Your task to perform on an android device: turn off wifi Image 0: 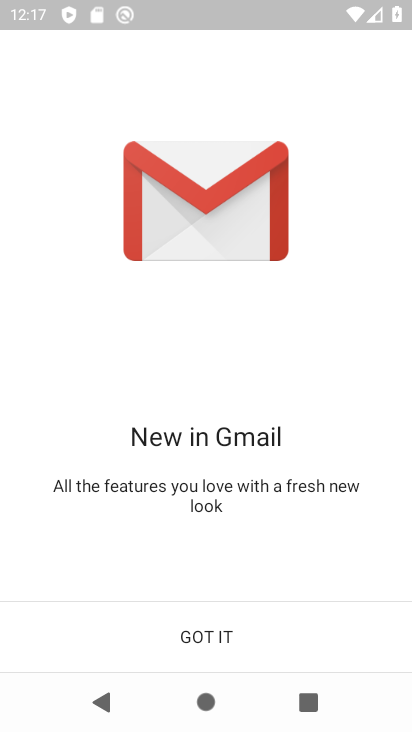
Step 0: click (247, 629)
Your task to perform on an android device: turn off wifi Image 1: 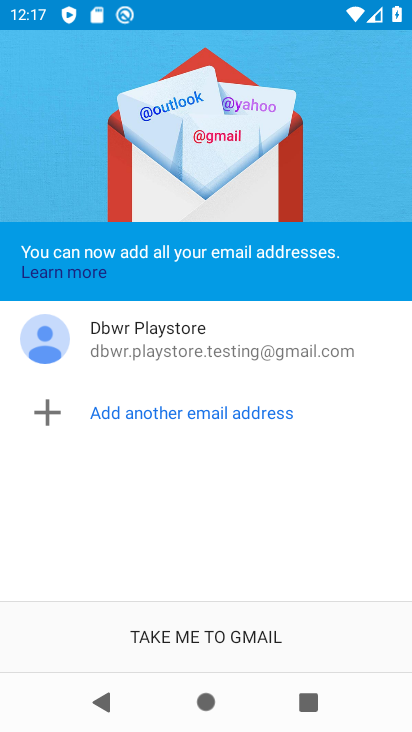
Step 1: click (241, 648)
Your task to perform on an android device: turn off wifi Image 2: 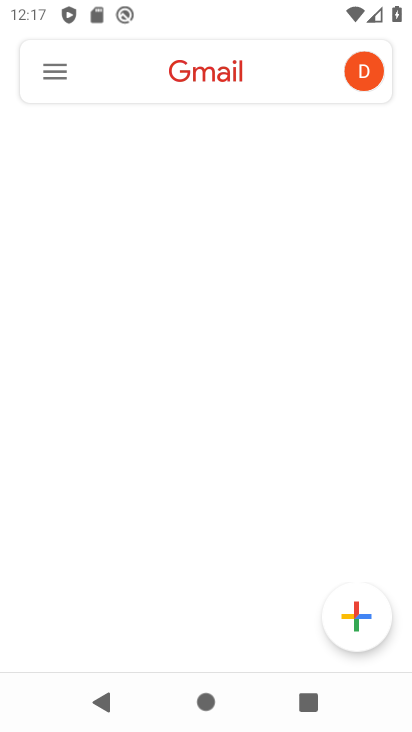
Step 2: press home button
Your task to perform on an android device: turn off wifi Image 3: 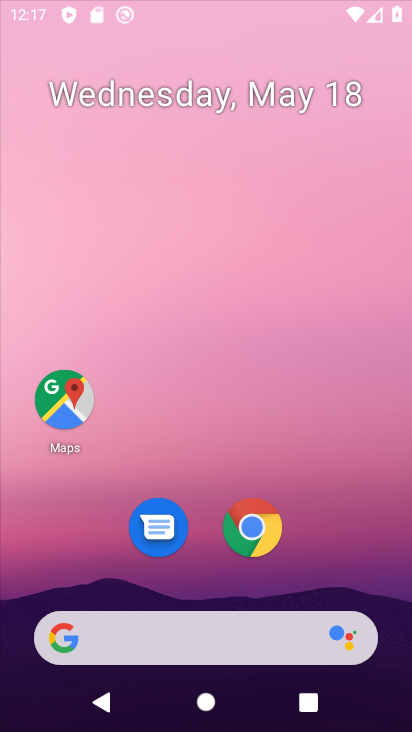
Step 3: drag from (293, 533) to (212, 33)
Your task to perform on an android device: turn off wifi Image 4: 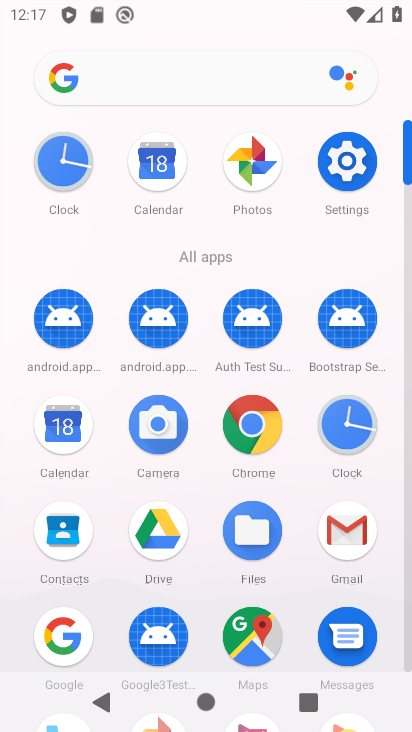
Step 4: click (347, 169)
Your task to perform on an android device: turn off wifi Image 5: 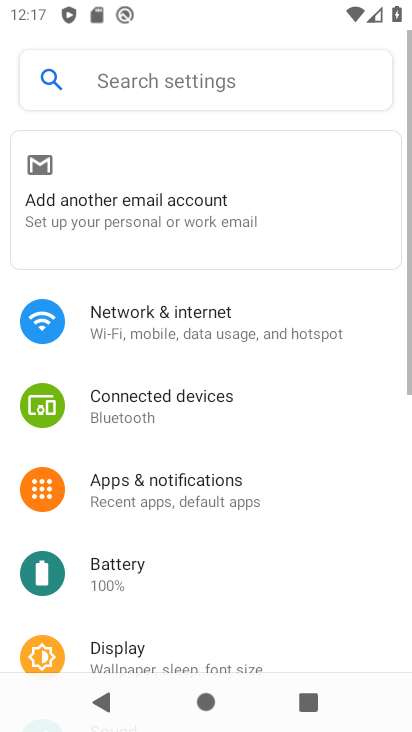
Step 5: click (194, 318)
Your task to perform on an android device: turn off wifi Image 6: 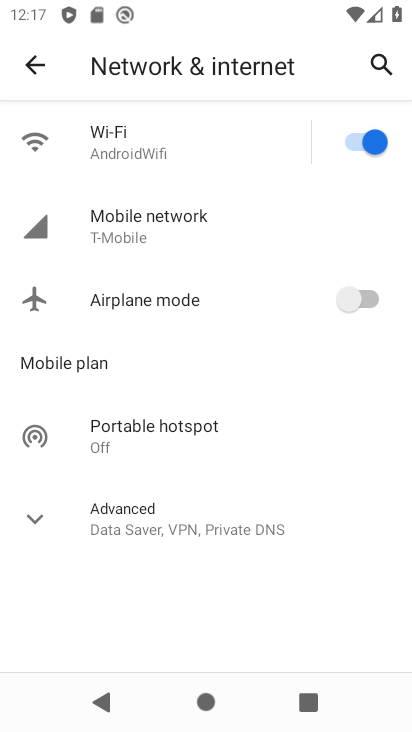
Step 6: click (355, 146)
Your task to perform on an android device: turn off wifi Image 7: 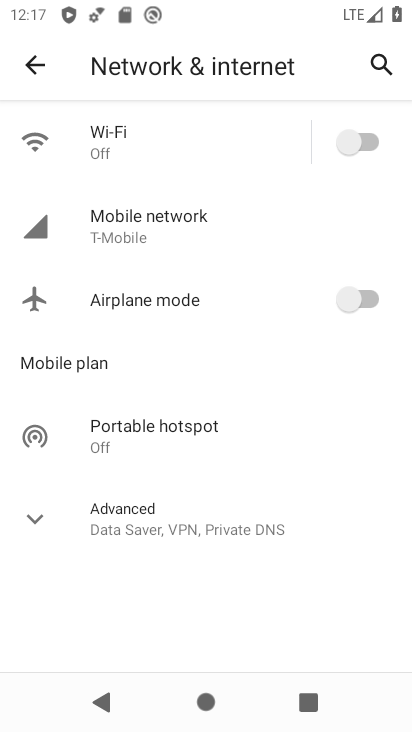
Step 7: task complete